Your task to perform on an android device: Open the map Image 0: 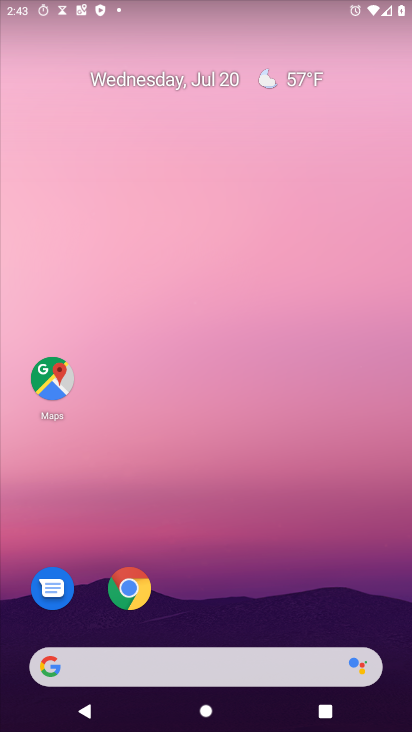
Step 0: drag from (316, 645) to (315, 4)
Your task to perform on an android device: Open the map Image 1: 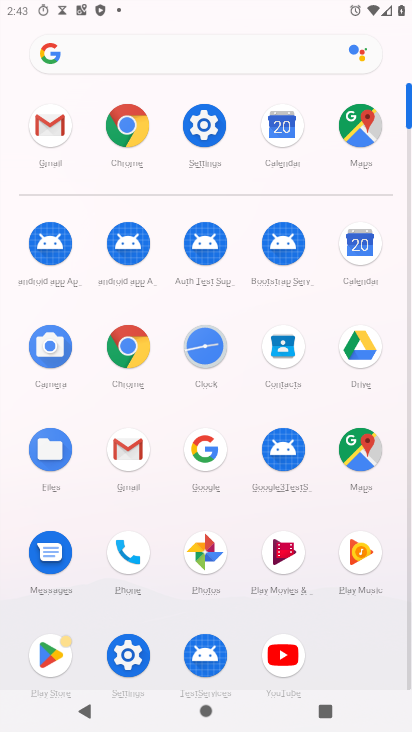
Step 1: click (368, 440)
Your task to perform on an android device: Open the map Image 2: 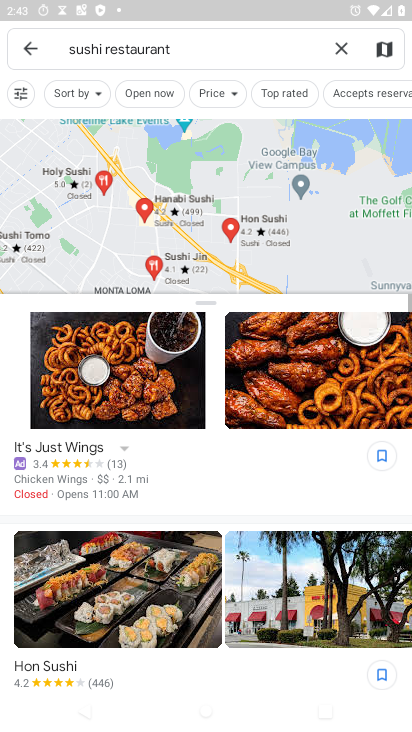
Step 2: task complete